Your task to perform on an android device: When is my next appointment? Image 0: 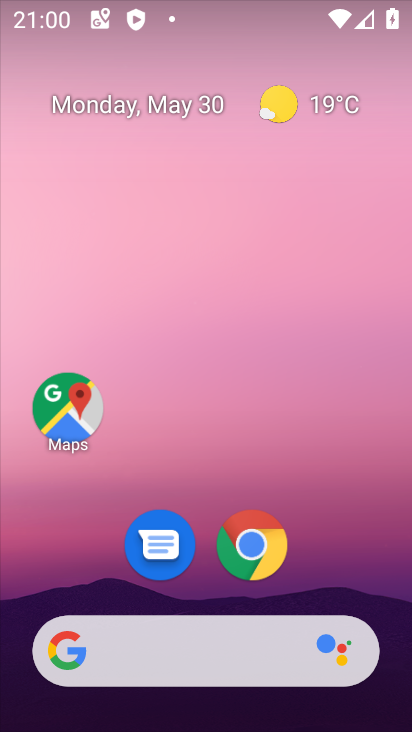
Step 0: click (181, 647)
Your task to perform on an android device: When is my next appointment? Image 1: 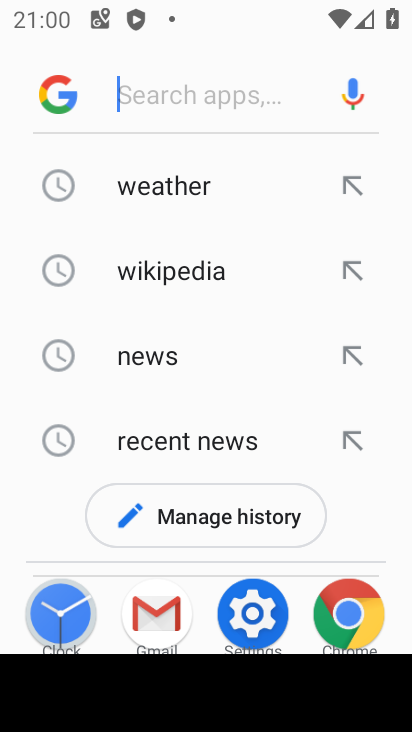
Step 1: press home button
Your task to perform on an android device: When is my next appointment? Image 2: 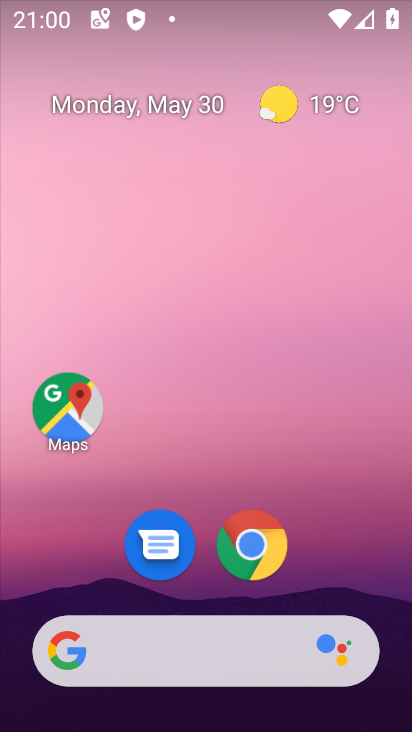
Step 2: click (185, 112)
Your task to perform on an android device: When is my next appointment? Image 3: 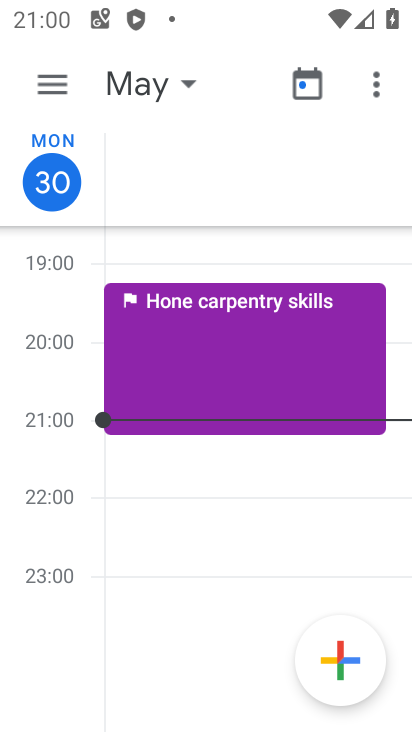
Step 3: click (64, 80)
Your task to perform on an android device: When is my next appointment? Image 4: 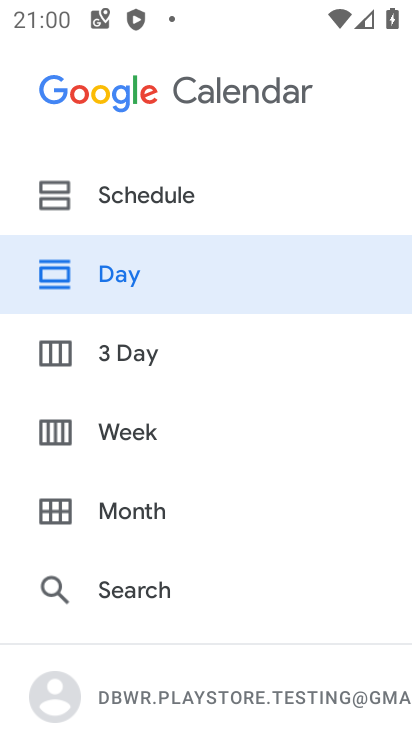
Step 4: drag from (238, 582) to (278, 104)
Your task to perform on an android device: When is my next appointment? Image 5: 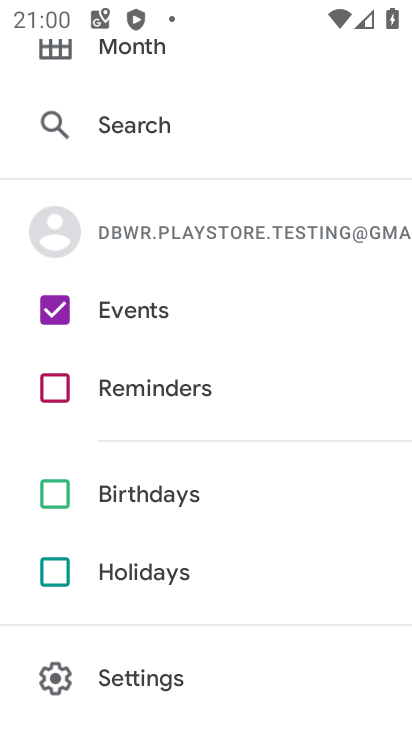
Step 5: click (58, 396)
Your task to perform on an android device: When is my next appointment? Image 6: 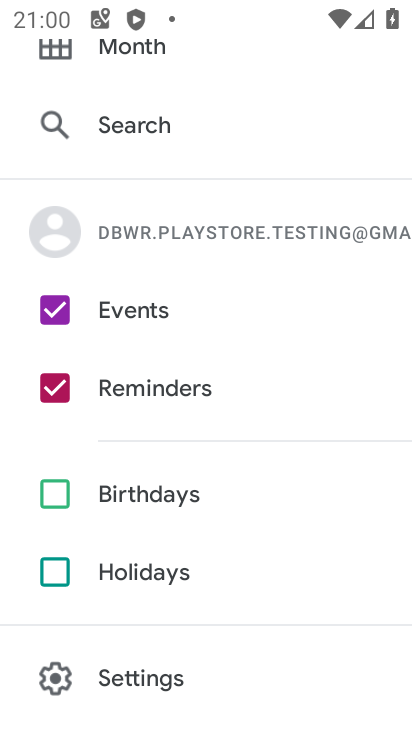
Step 6: click (51, 494)
Your task to perform on an android device: When is my next appointment? Image 7: 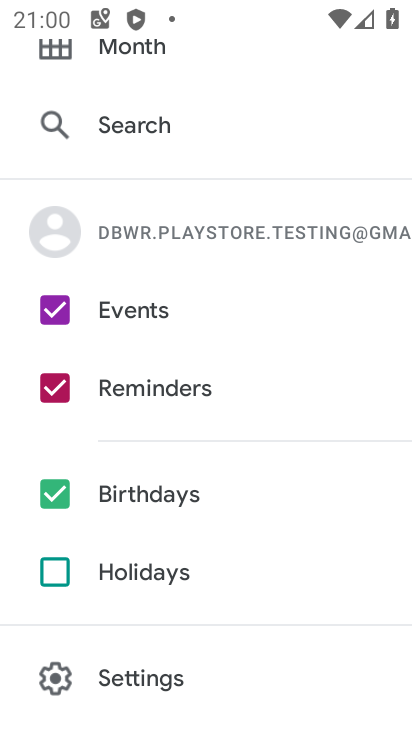
Step 7: click (51, 565)
Your task to perform on an android device: When is my next appointment? Image 8: 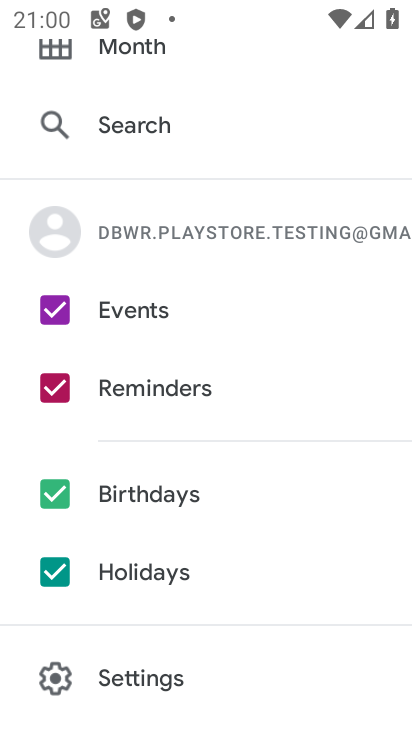
Step 8: drag from (314, 250) to (276, 663)
Your task to perform on an android device: When is my next appointment? Image 9: 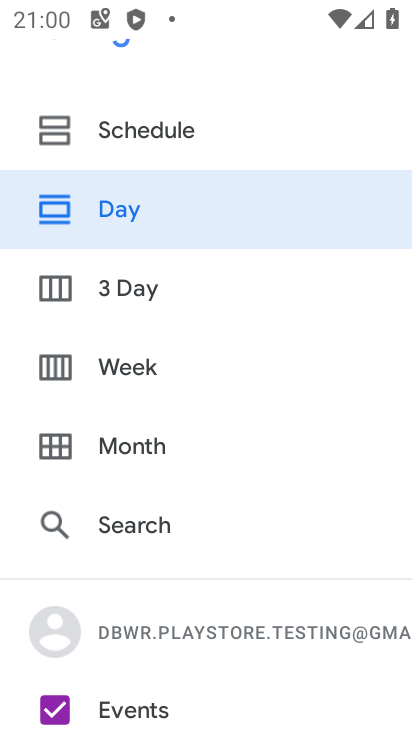
Step 9: click (235, 127)
Your task to perform on an android device: When is my next appointment? Image 10: 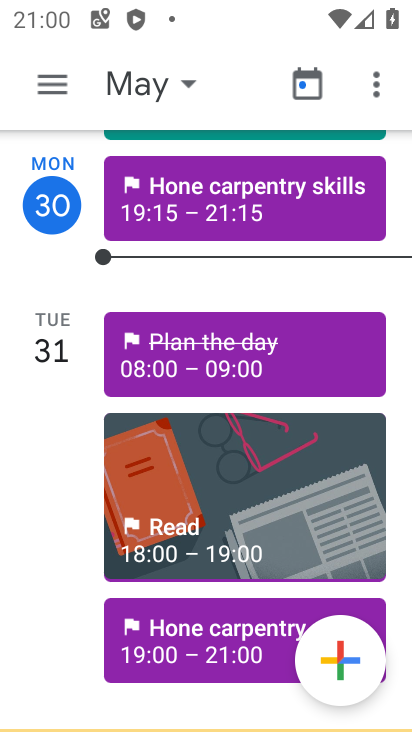
Step 10: drag from (264, 429) to (273, 254)
Your task to perform on an android device: When is my next appointment? Image 11: 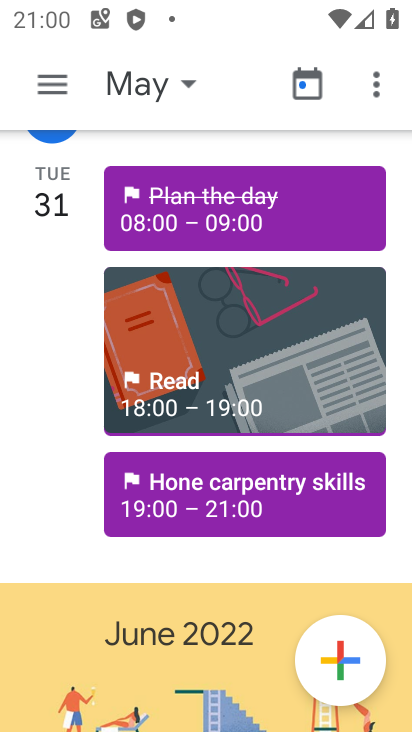
Step 11: click (228, 328)
Your task to perform on an android device: When is my next appointment? Image 12: 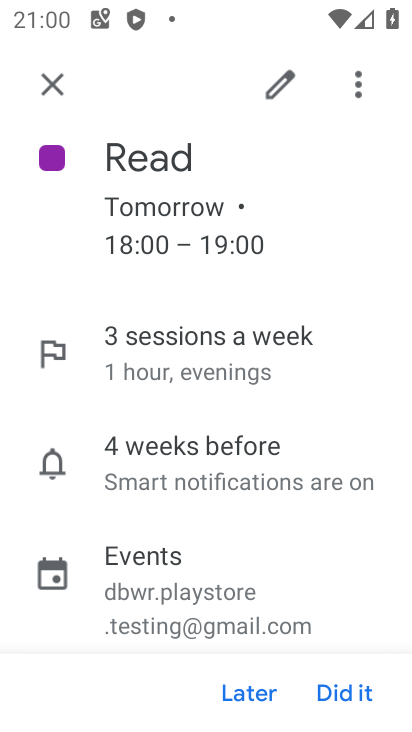
Step 12: task complete